Your task to perform on an android device: open a bookmark in the chrome app Image 0: 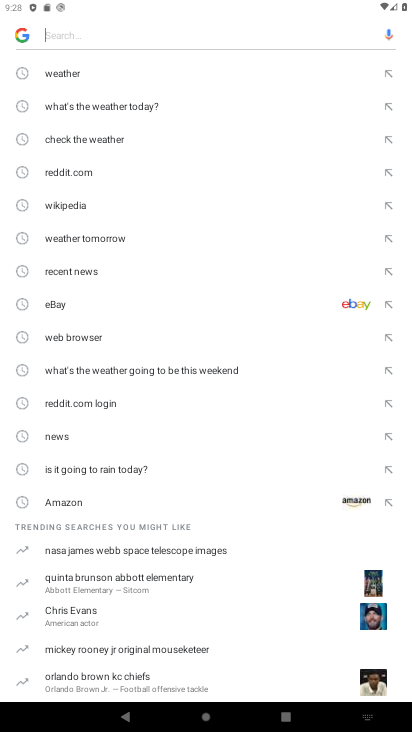
Step 0: press back button
Your task to perform on an android device: open a bookmark in the chrome app Image 1: 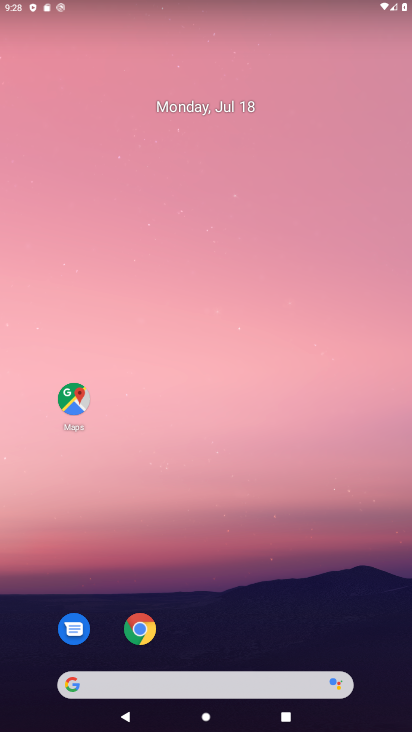
Step 1: click (128, 637)
Your task to perform on an android device: open a bookmark in the chrome app Image 2: 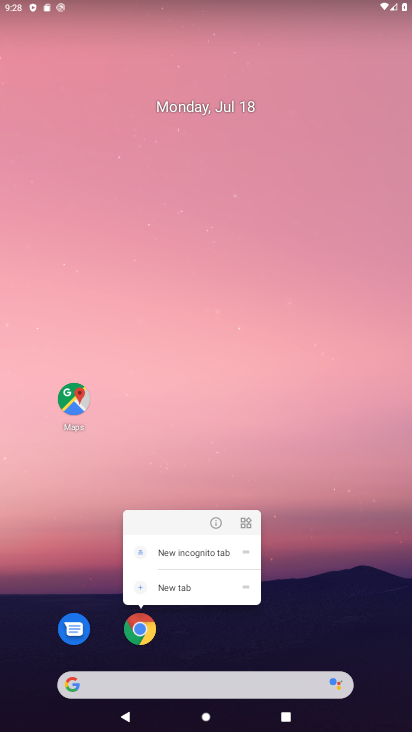
Step 2: click (126, 628)
Your task to perform on an android device: open a bookmark in the chrome app Image 3: 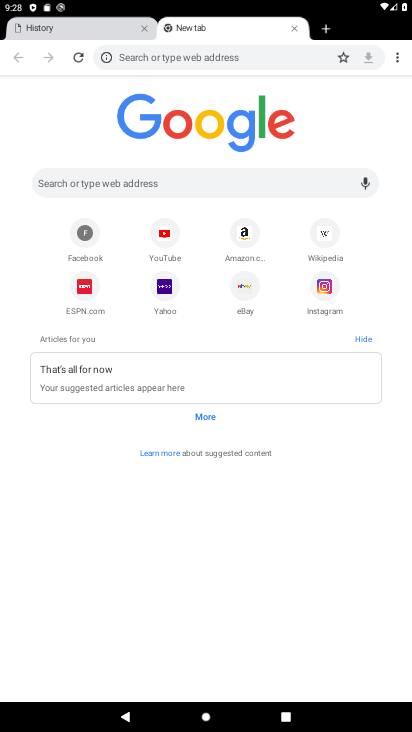
Step 3: task complete